Your task to perform on an android device: visit the assistant section in the google photos Image 0: 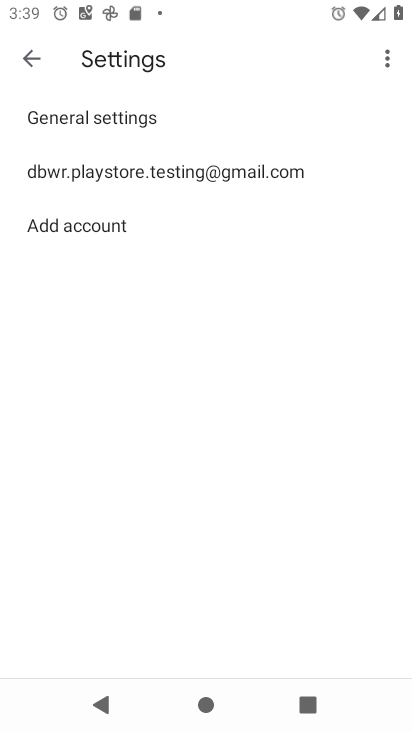
Step 0: press home button
Your task to perform on an android device: visit the assistant section in the google photos Image 1: 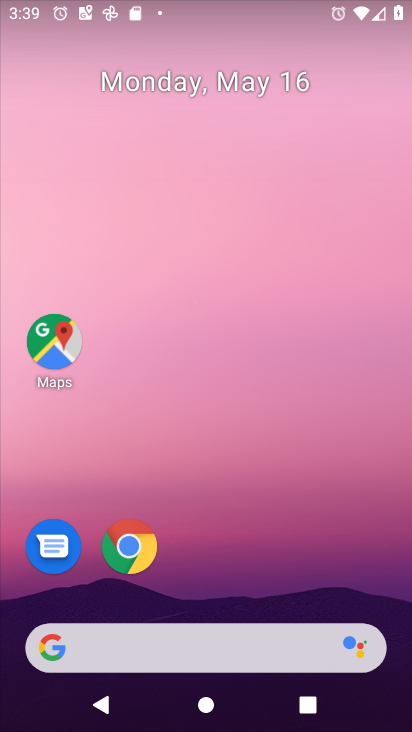
Step 1: drag from (357, 569) to (388, 60)
Your task to perform on an android device: visit the assistant section in the google photos Image 2: 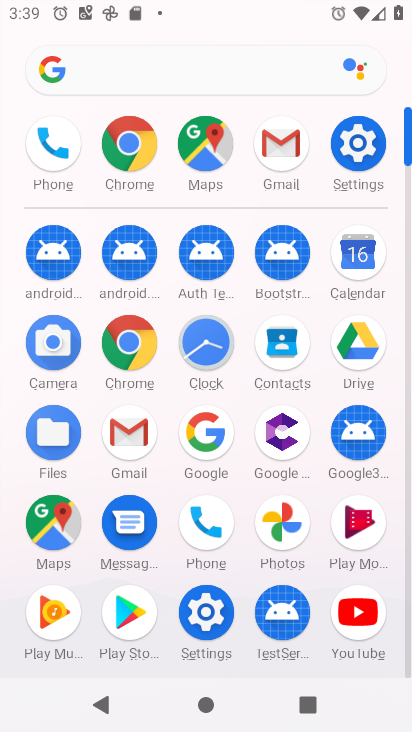
Step 2: click (287, 522)
Your task to perform on an android device: visit the assistant section in the google photos Image 3: 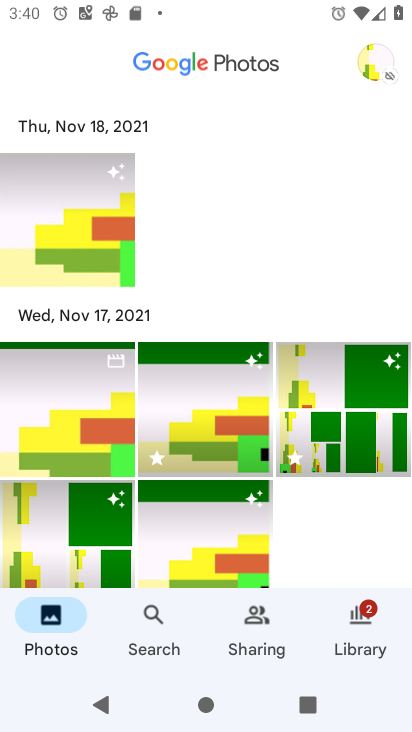
Step 3: click (359, 627)
Your task to perform on an android device: visit the assistant section in the google photos Image 4: 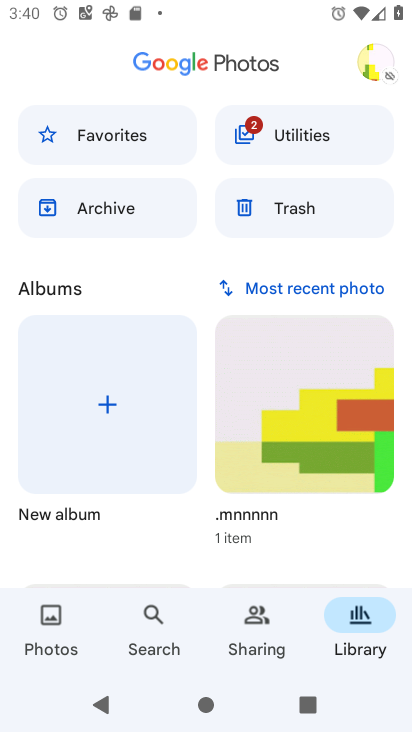
Step 4: task complete